Your task to perform on an android device: Open the phone app and click the voicemail tab. Image 0: 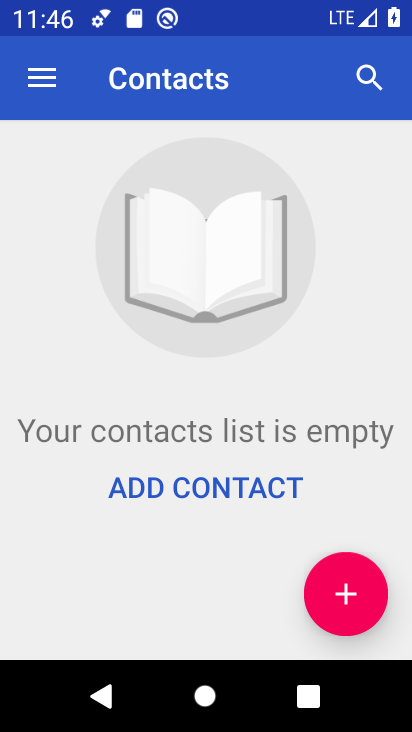
Step 0: press home button
Your task to perform on an android device: Open the phone app and click the voicemail tab. Image 1: 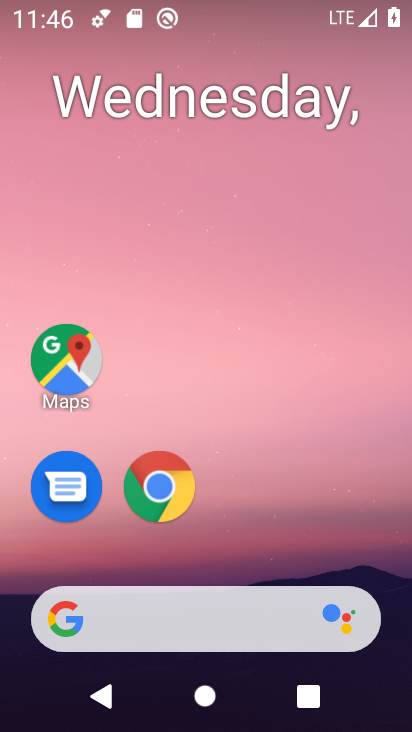
Step 1: drag from (356, 548) to (357, 205)
Your task to perform on an android device: Open the phone app and click the voicemail tab. Image 2: 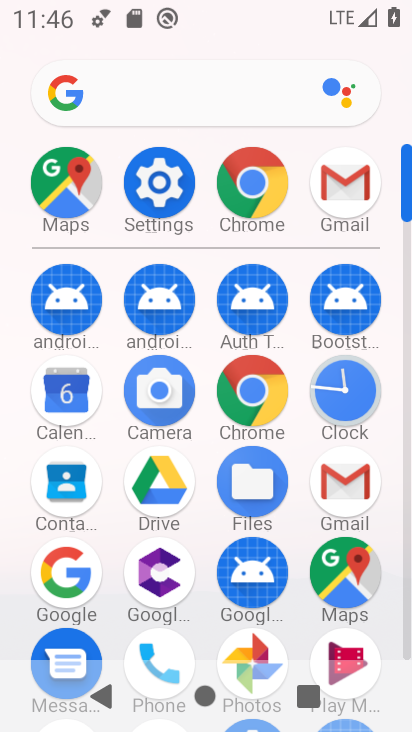
Step 2: drag from (394, 469) to (393, 168)
Your task to perform on an android device: Open the phone app and click the voicemail tab. Image 3: 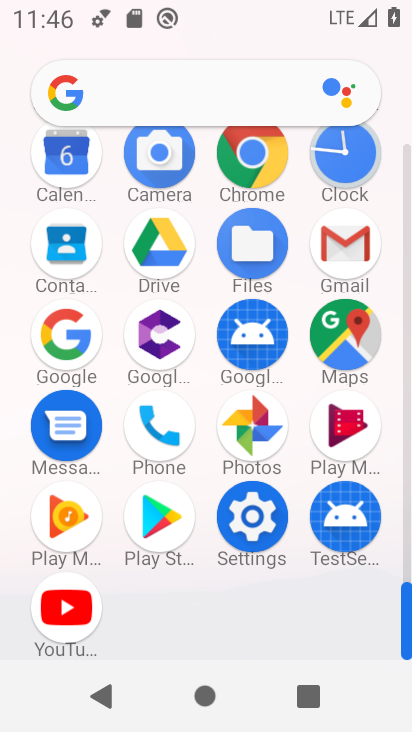
Step 3: click (170, 428)
Your task to perform on an android device: Open the phone app and click the voicemail tab. Image 4: 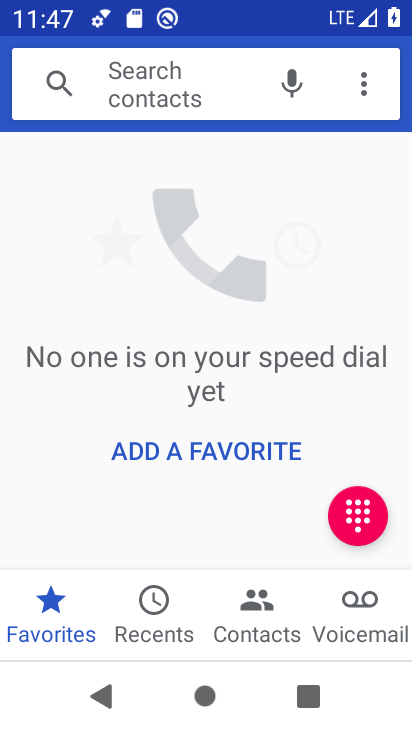
Step 4: click (368, 614)
Your task to perform on an android device: Open the phone app and click the voicemail tab. Image 5: 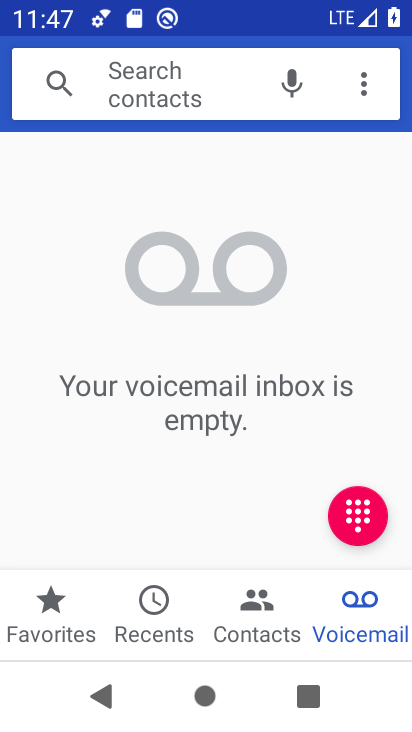
Step 5: task complete